Your task to perform on an android device: move an email to a new category in the gmail app Image 0: 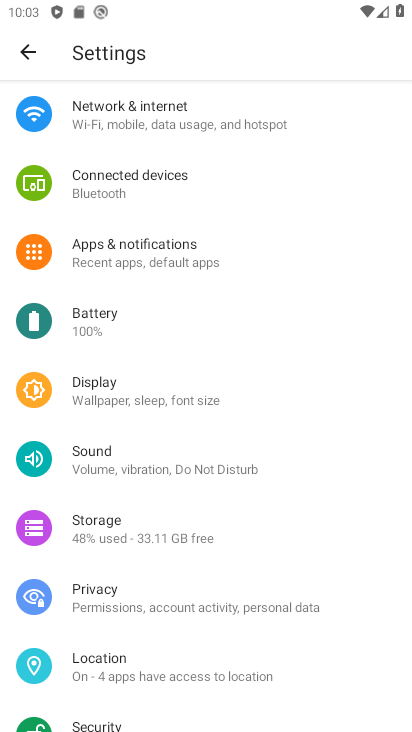
Step 0: press home button
Your task to perform on an android device: move an email to a new category in the gmail app Image 1: 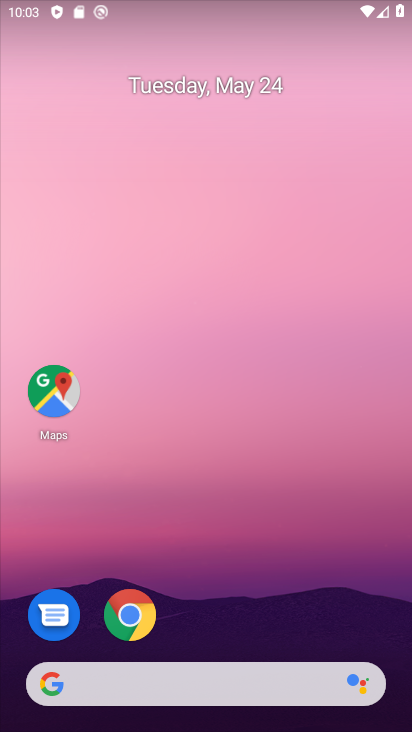
Step 1: drag from (194, 634) to (161, 13)
Your task to perform on an android device: move an email to a new category in the gmail app Image 2: 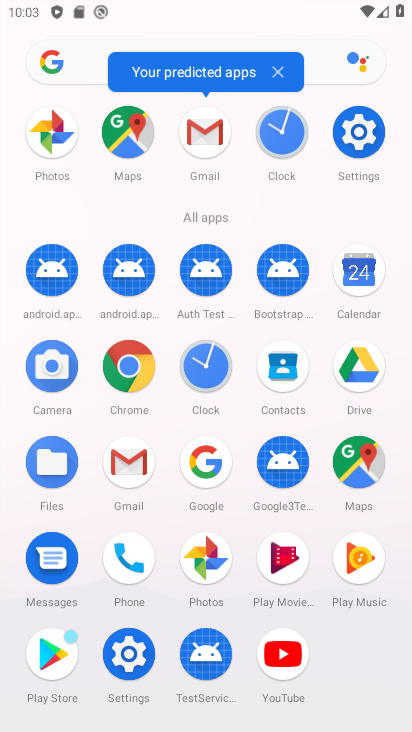
Step 2: click (133, 469)
Your task to perform on an android device: move an email to a new category in the gmail app Image 3: 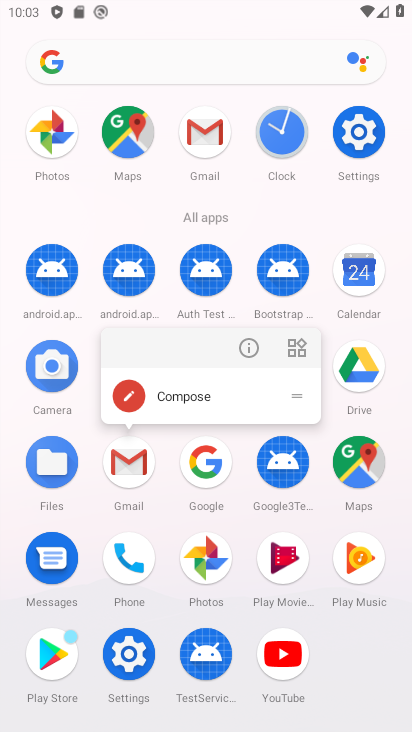
Step 3: click (117, 485)
Your task to perform on an android device: move an email to a new category in the gmail app Image 4: 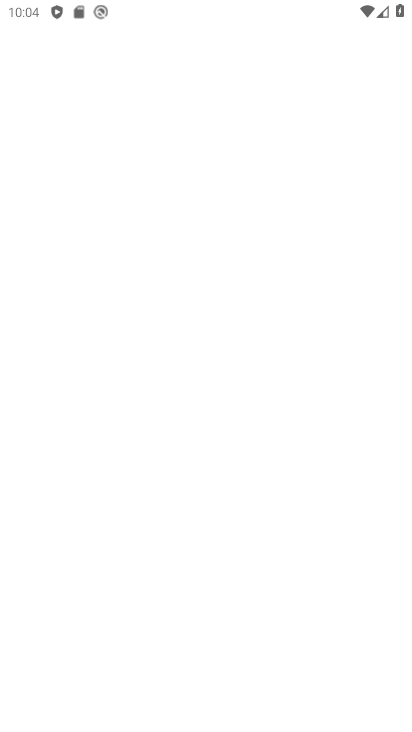
Step 4: click (126, 476)
Your task to perform on an android device: move an email to a new category in the gmail app Image 5: 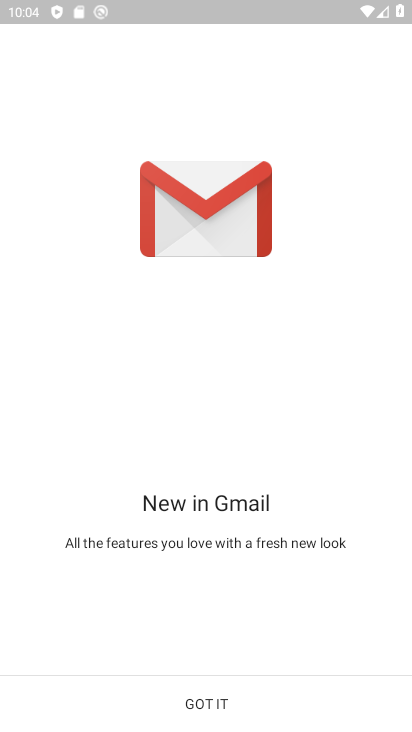
Step 5: click (191, 708)
Your task to perform on an android device: move an email to a new category in the gmail app Image 6: 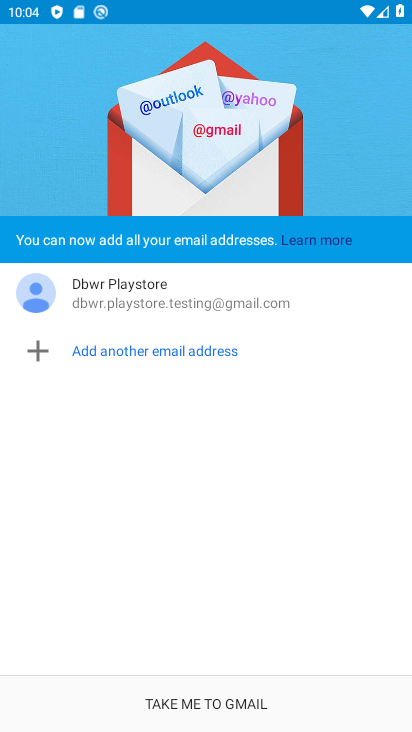
Step 6: click (206, 700)
Your task to perform on an android device: move an email to a new category in the gmail app Image 7: 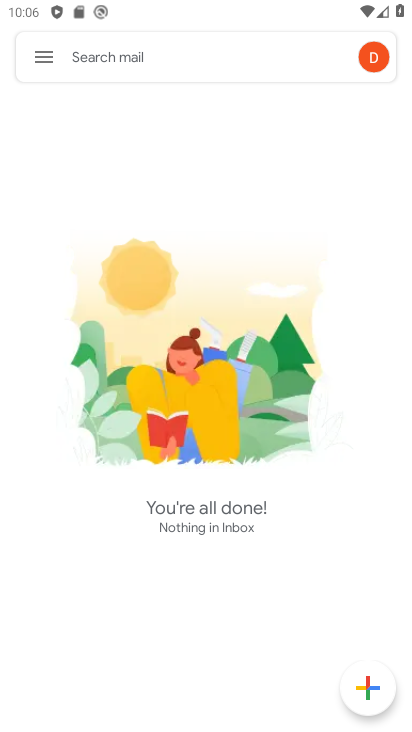
Step 7: click (66, 53)
Your task to perform on an android device: move an email to a new category in the gmail app Image 8: 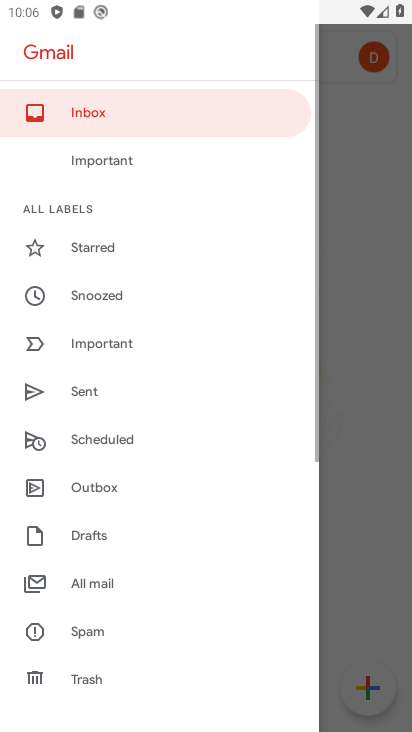
Step 8: click (30, 45)
Your task to perform on an android device: move an email to a new category in the gmail app Image 9: 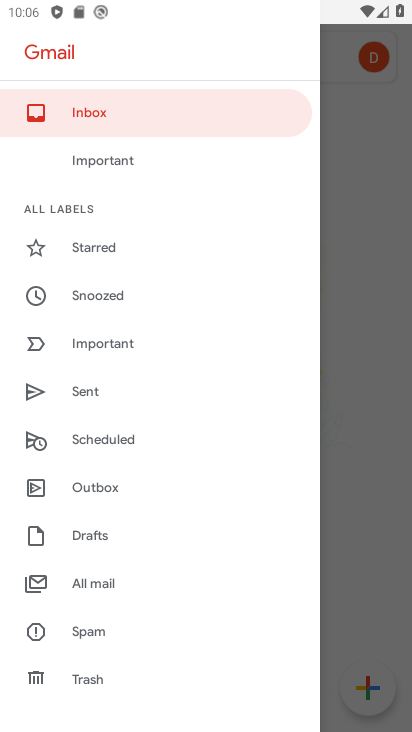
Step 9: drag from (126, 582) to (151, 218)
Your task to perform on an android device: move an email to a new category in the gmail app Image 10: 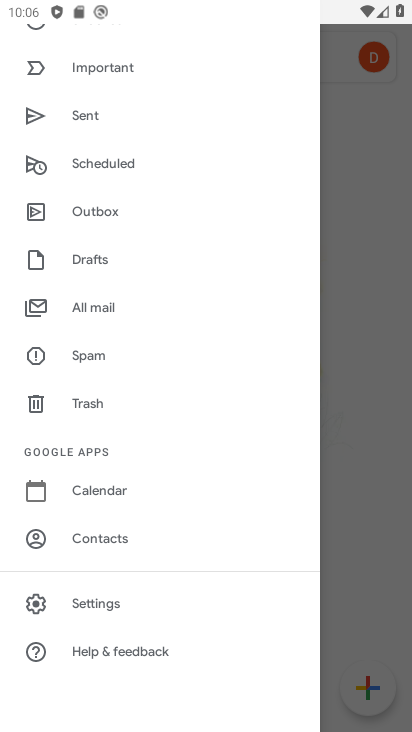
Step 10: click (102, 306)
Your task to perform on an android device: move an email to a new category in the gmail app Image 11: 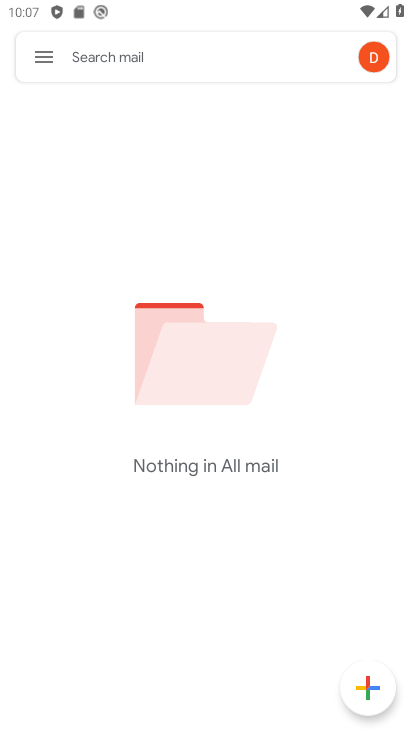
Step 11: task complete